Your task to perform on an android device: Open calendar and show me the third week of next month Image 0: 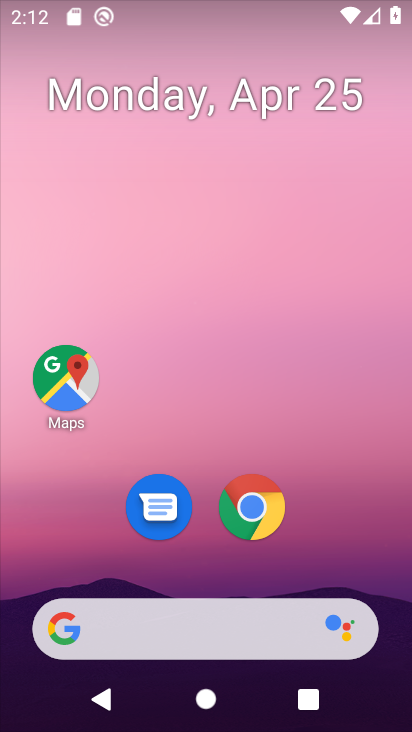
Step 0: press home button
Your task to perform on an android device: Open calendar and show me the third week of next month Image 1: 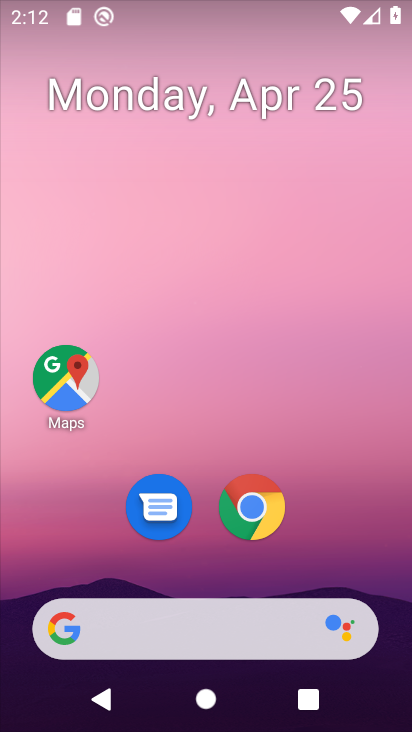
Step 1: drag from (118, 651) to (265, 237)
Your task to perform on an android device: Open calendar and show me the third week of next month Image 2: 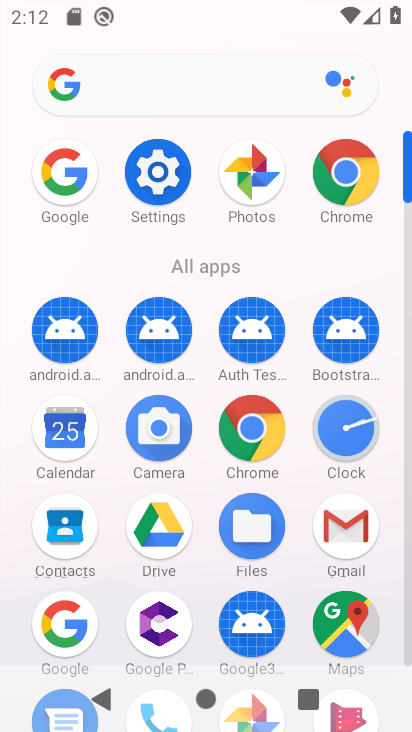
Step 2: click (55, 438)
Your task to perform on an android device: Open calendar and show me the third week of next month Image 3: 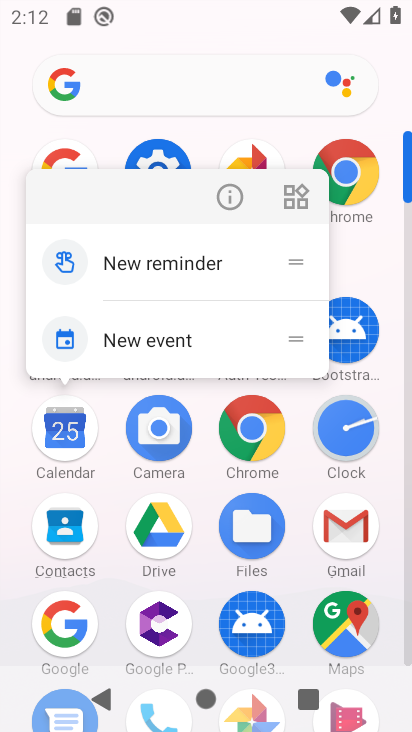
Step 3: click (63, 431)
Your task to perform on an android device: Open calendar and show me the third week of next month Image 4: 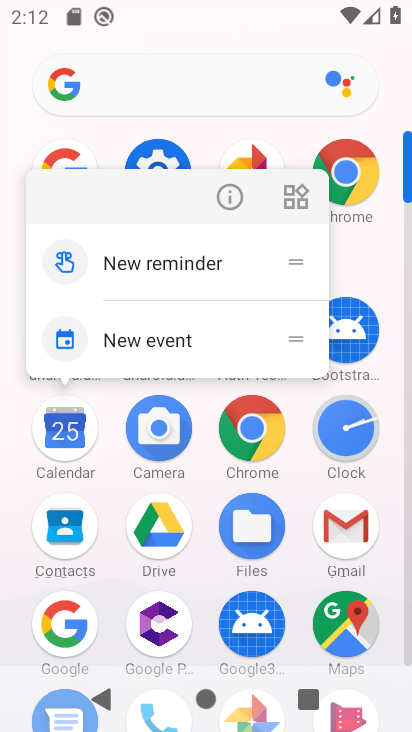
Step 4: click (61, 438)
Your task to perform on an android device: Open calendar and show me the third week of next month Image 5: 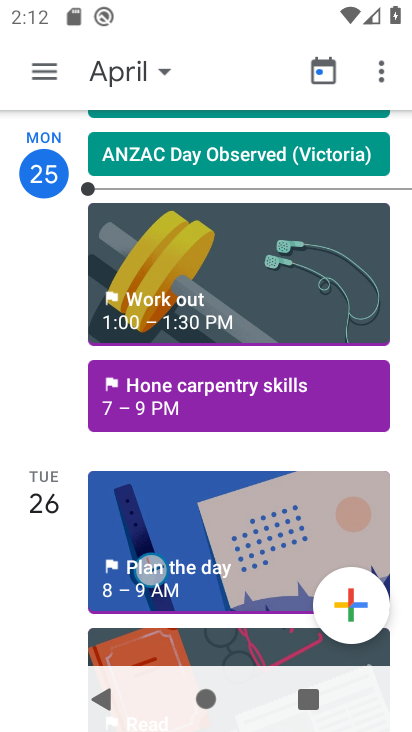
Step 5: click (130, 82)
Your task to perform on an android device: Open calendar and show me the third week of next month Image 6: 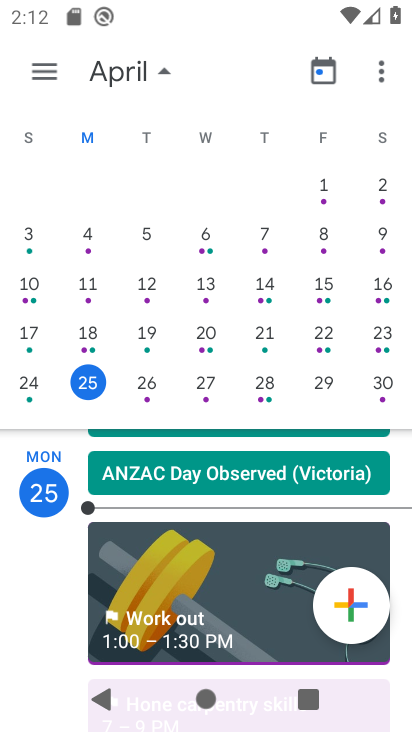
Step 6: drag from (321, 367) to (157, 353)
Your task to perform on an android device: Open calendar and show me the third week of next month Image 7: 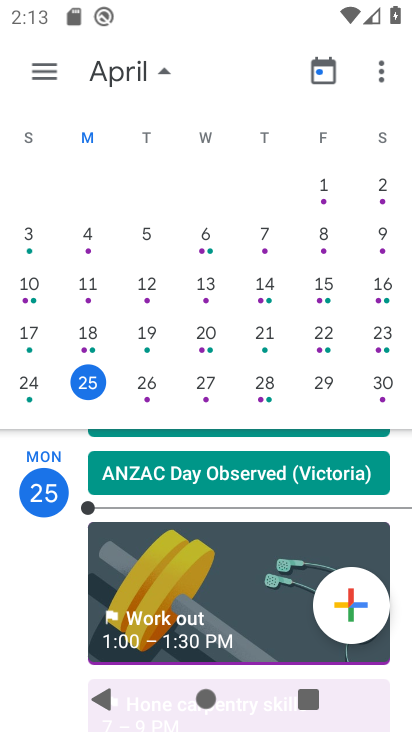
Step 7: drag from (346, 300) to (143, 329)
Your task to perform on an android device: Open calendar and show me the third week of next month Image 8: 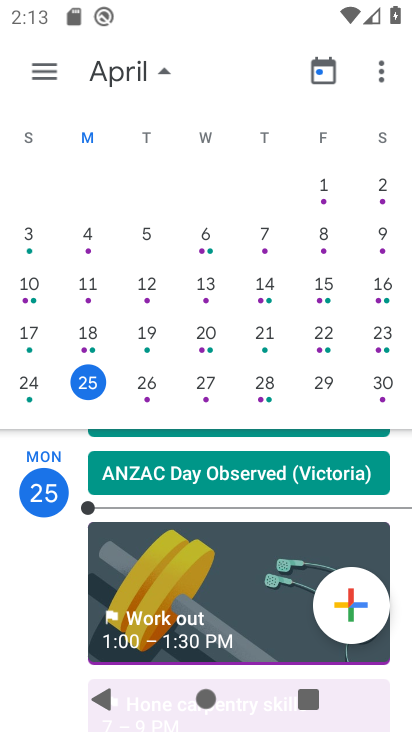
Step 8: drag from (363, 299) to (45, 317)
Your task to perform on an android device: Open calendar and show me the third week of next month Image 9: 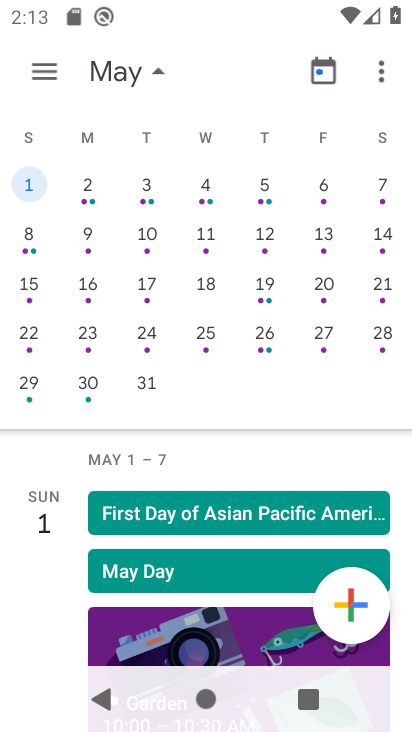
Step 9: click (25, 282)
Your task to perform on an android device: Open calendar and show me the third week of next month Image 10: 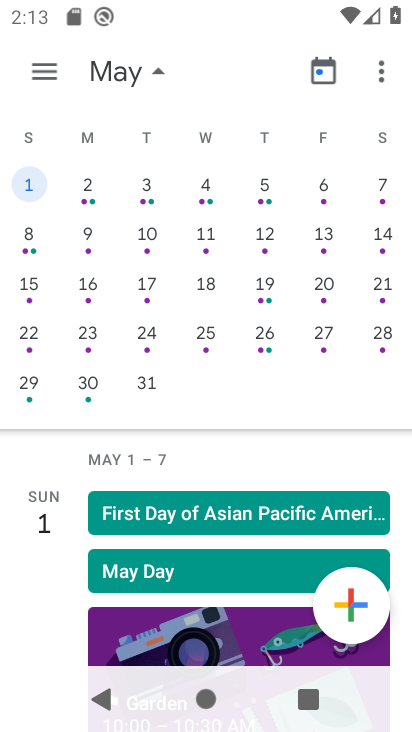
Step 10: click (39, 279)
Your task to perform on an android device: Open calendar and show me the third week of next month Image 11: 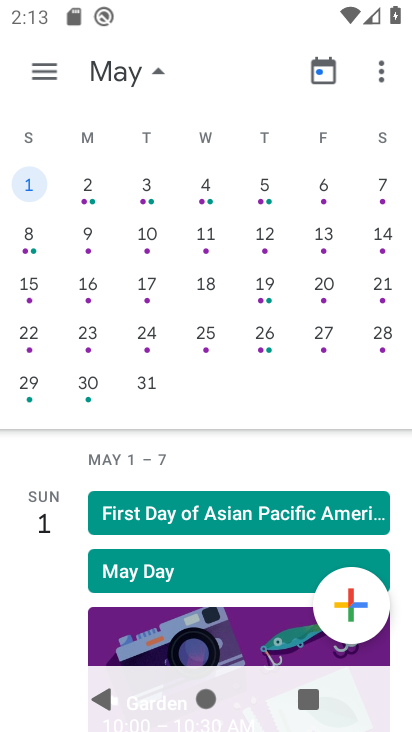
Step 11: click (34, 286)
Your task to perform on an android device: Open calendar and show me the third week of next month Image 12: 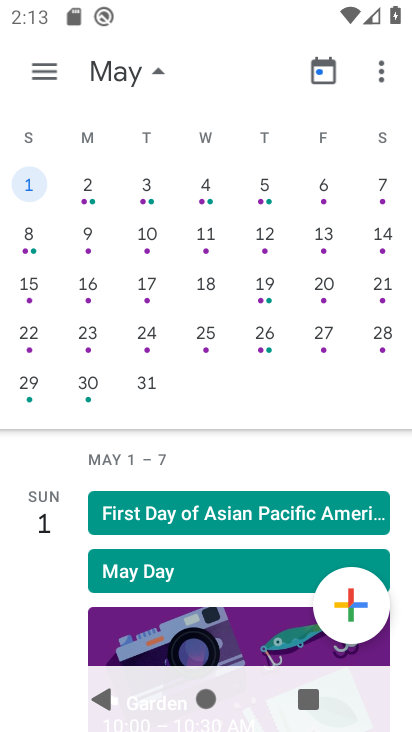
Step 12: click (31, 289)
Your task to perform on an android device: Open calendar and show me the third week of next month Image 13: 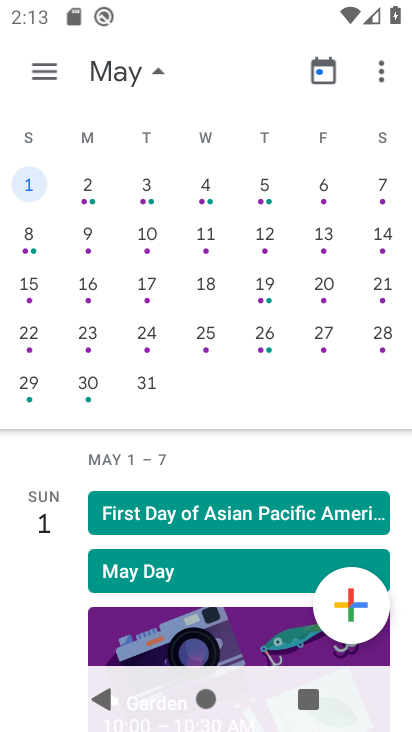
Step 13: click (26, 279)
Your task to perform on an android device: Open calendar and show me the third week of next month Image 14: 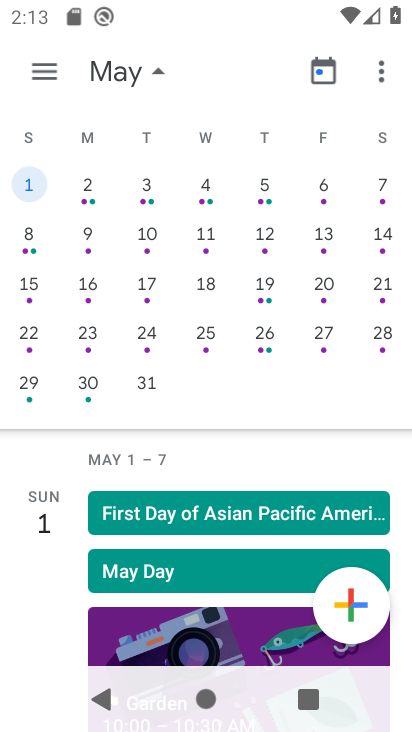
Step 14: click (117, 561)
Your task to perform on an android device: Open calendar and show me the third week of next month Image 15: 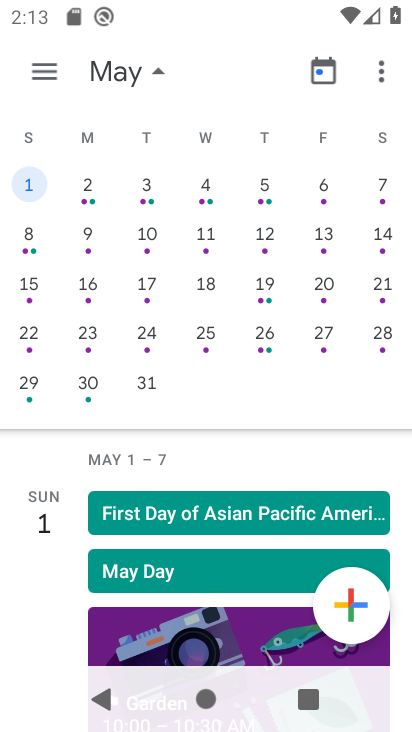
Step 15: click (36, 279)
Your task to perform on an android device: Open calendar and show me the third week of next month Image 16: 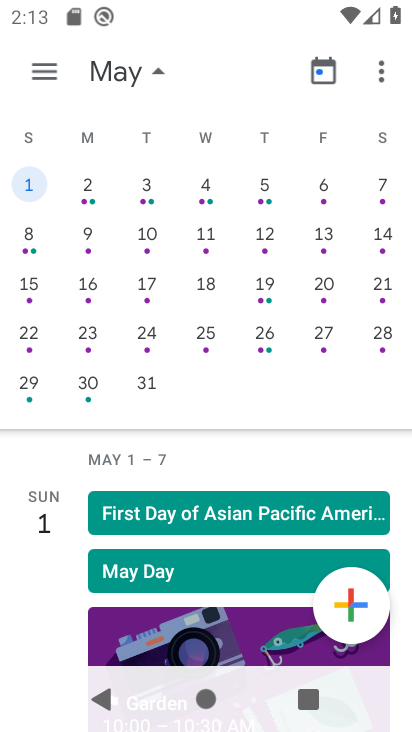
Step 16: click (33, 286)
Your task to perform on an android device: Open calendar and show me the third week of next month Image 17: 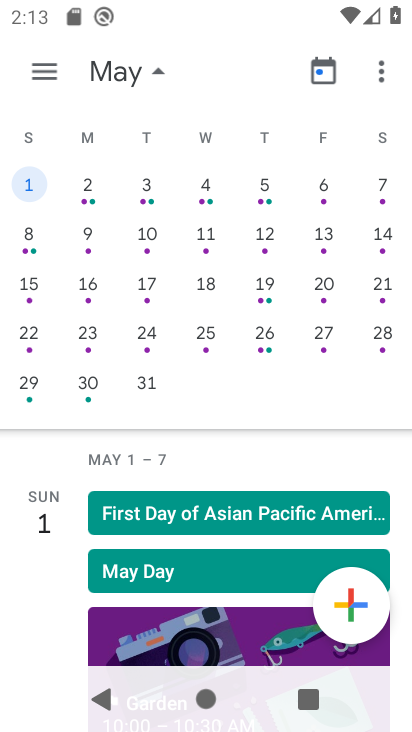
Step 17: click (91, 284)
Your task to perform on an android device: Open calendar and show me the third week of next month Image 18: 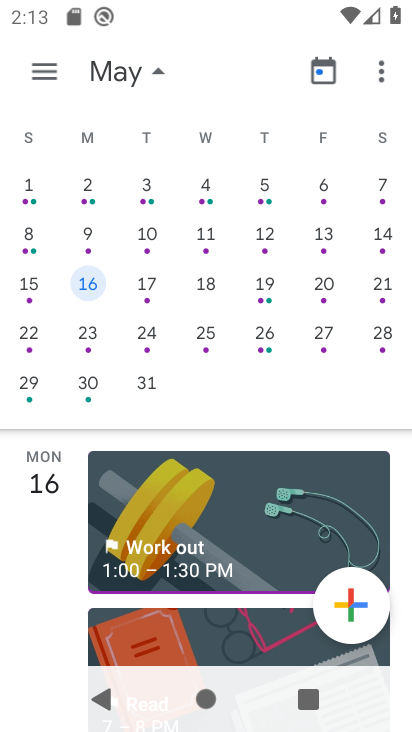
Step 18: click (34, 284)
Your task to perform on an android device: Open calendar and show me the third week of next month Image 19: 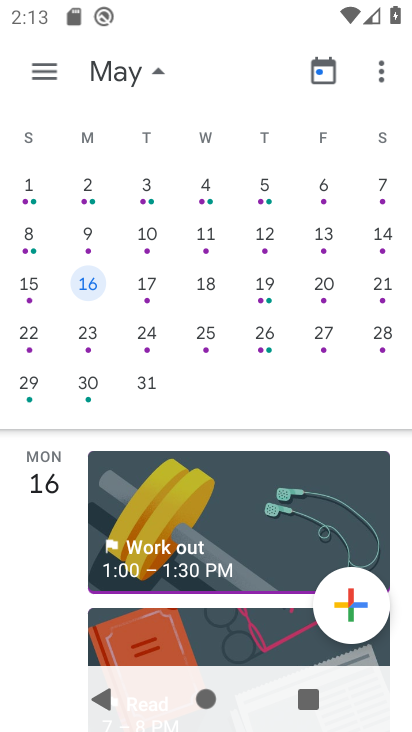
Step 19: click (26, 287)
Your task to perform on an android device: Open calendar and show me the third week of next month Image 20: 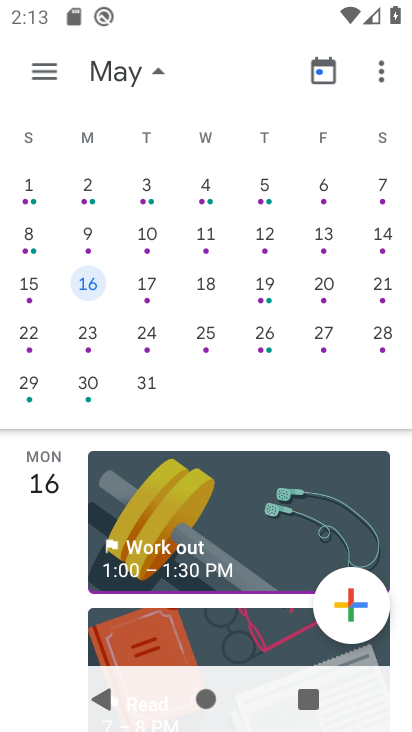
Step 20: click (29, 275)
Your task to perform on an android device: Open calendar and show me the third week of next month Image 21: 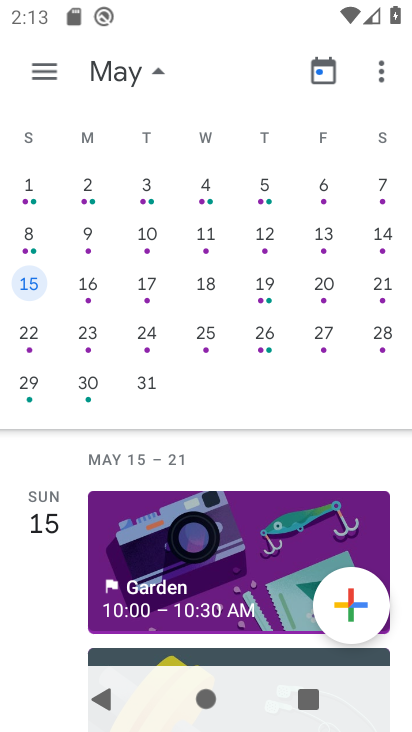
Step 21: click (36, 66)
Your task to perform on an android device: Open calendar and show me the third week of next month Image 22: 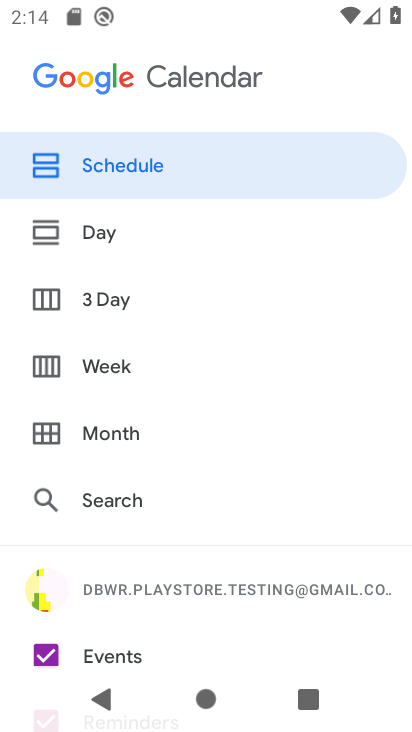
Step 22: click (123, 367)
Your task to perform on an android device: Open calendar and show me the third week of next month Image 23: 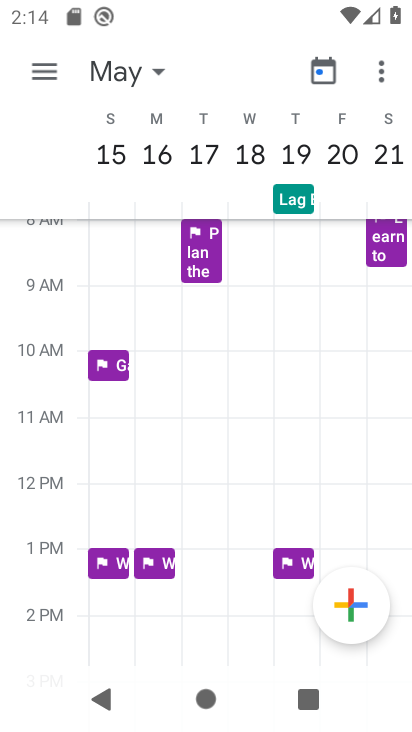
Step 23: task complete